Your task to perform on an android device: find which apps use the phone's location Image 0: 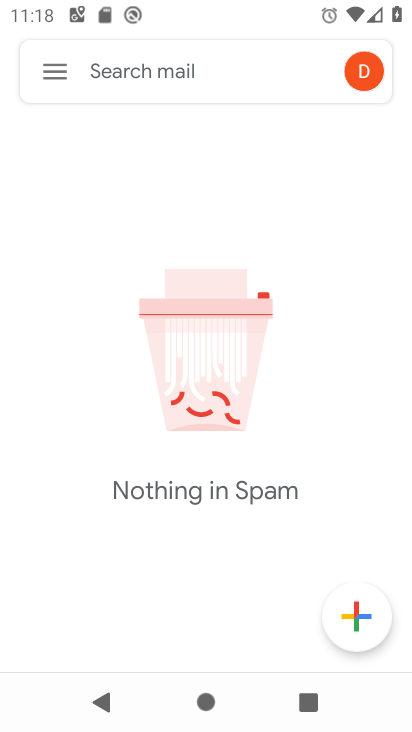
Step 0: press home button
Your task to perform on an android device: find which apps use the phone's location Image 1: 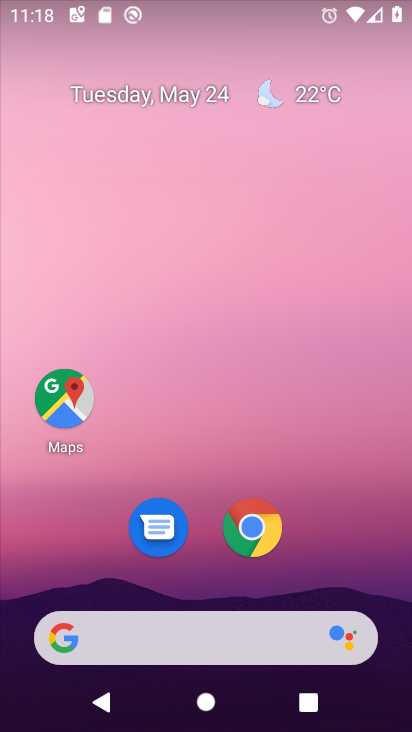
Step 1: drag from (182, 635) to (306, 77)
Your task to perform on an android device: find which apps use the phone's location Image 2: 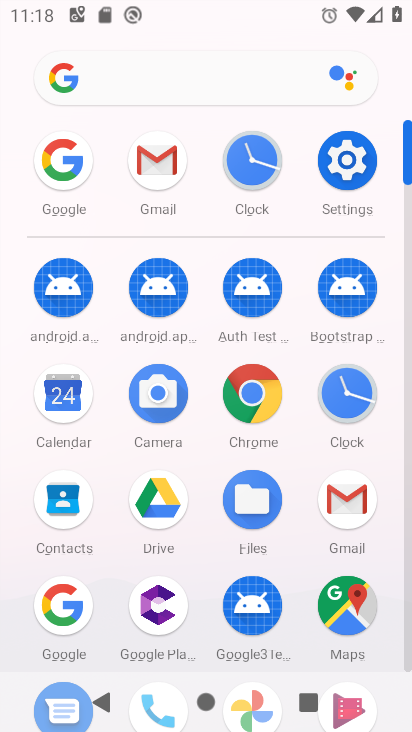
Step 2: click (353, 169)
Your task to perform on an android device: find which apps use the phone's location Image 3: 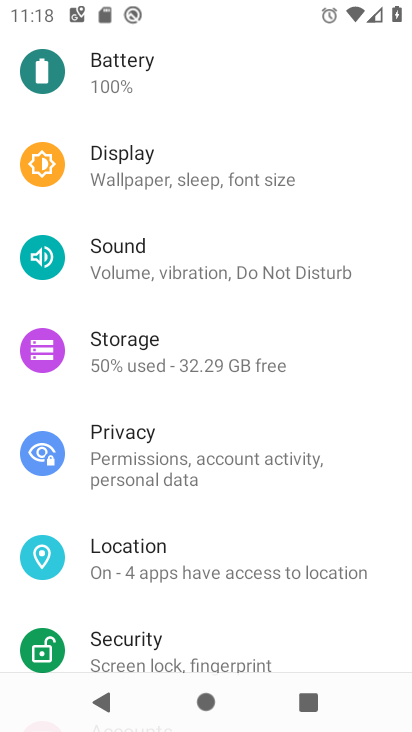
Step 3: click (145, 556)
Your task to perform on an android device: find which apps use the phone's location Image 4: 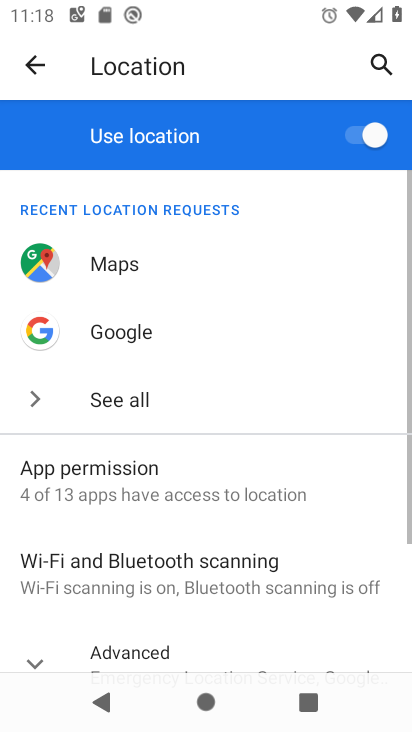
Step 4: click (84, 482)
Your task to perform on an android device: find which apps use the phone's location Image 5: 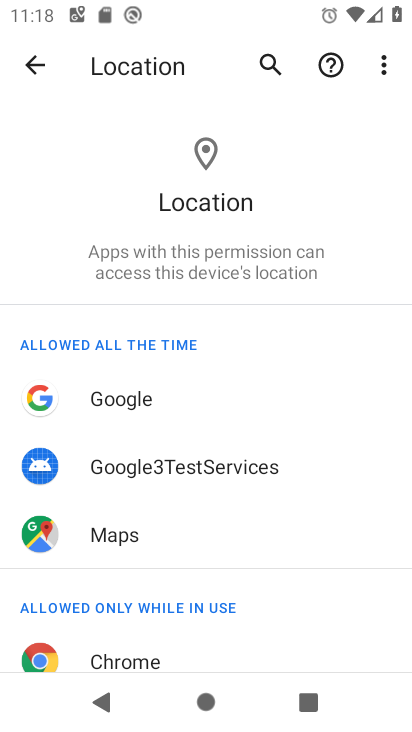
Step 5: drag from (215, 656) to (258, 150)
Your task to perform on an android device: find which apps use the phone's location Image 6: 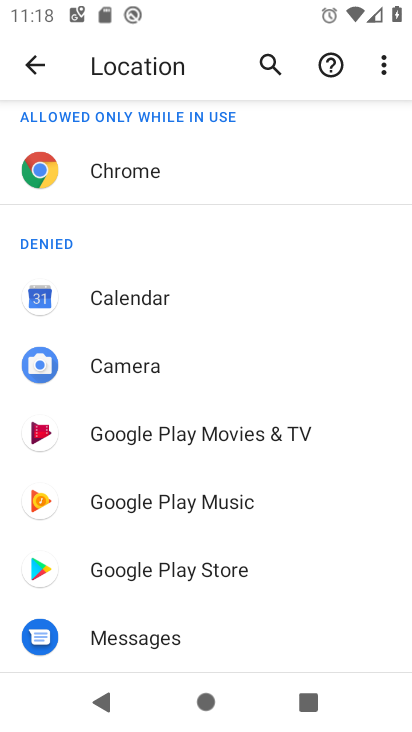
Step 6: drag from (242, 615) to (301, 150)
Your task to perform on an android device: find which apps use the phone's location Image 7: 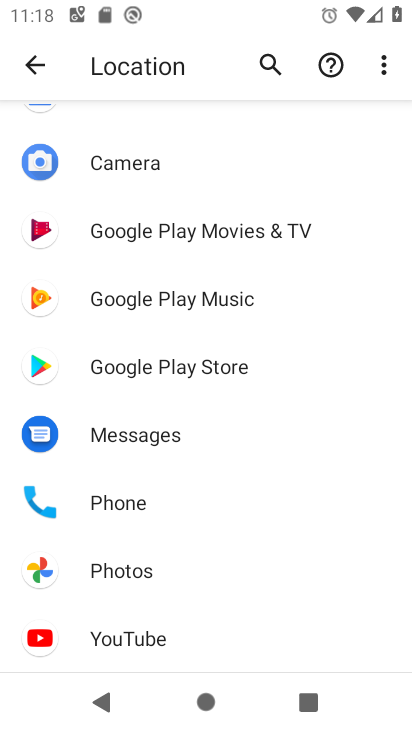
Step 7: click (140, 498)
Your task to perform on an android device: find which apps use the phone's location Image 8: 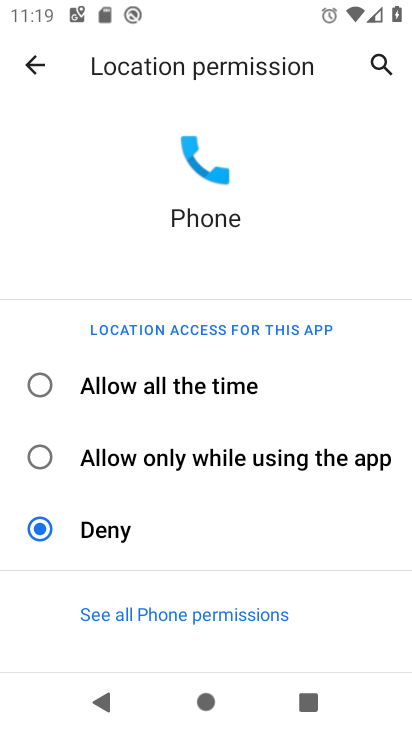
Step 8: task complete